Your task to perform on an android device: check battery use Image 0: 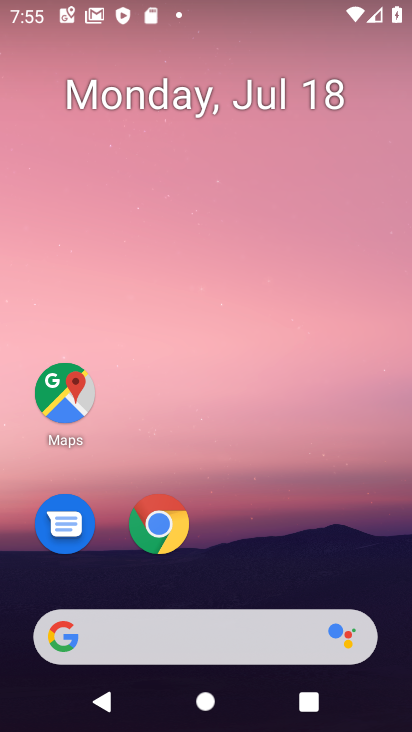
Step 0: drag from (286, 549) to (291, 11)
Your task to perform on an android device: check battery use Image 1: 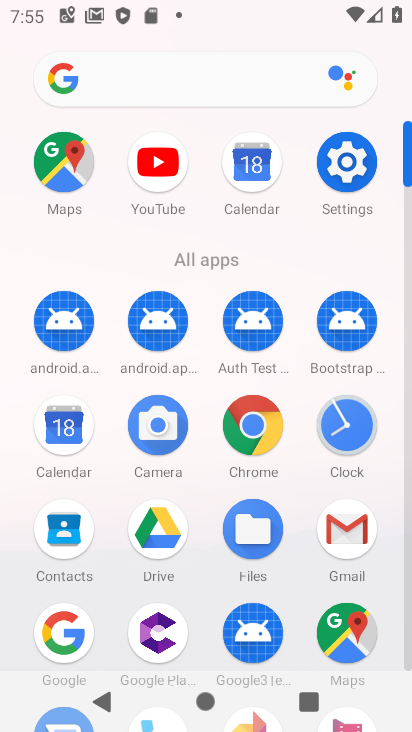
Step 1: click (342, 167)
Your task to perform on an android device: check battery use Image 2: 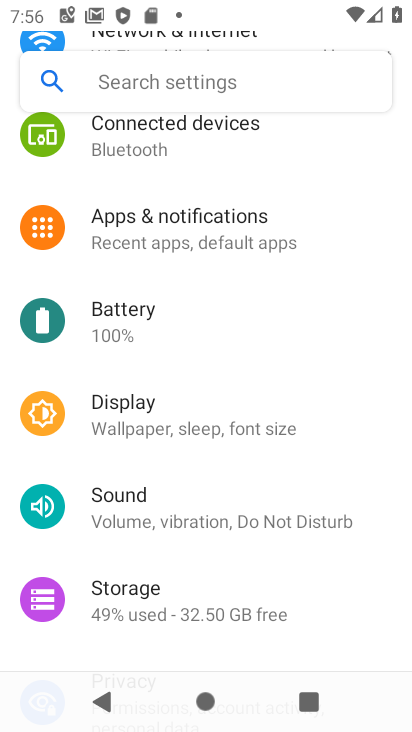
Step 2: click (131, 321)
Your task to perform on an android device: check battery use Image 3: 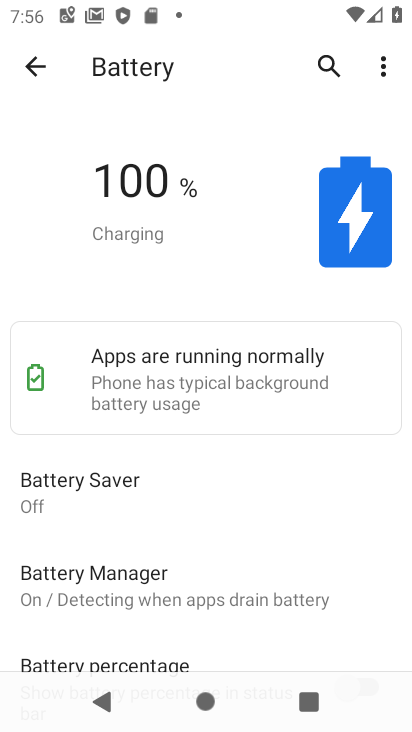
Step 3: click (381, 74)
Your task to perform on an android device: check battery use Image 4: 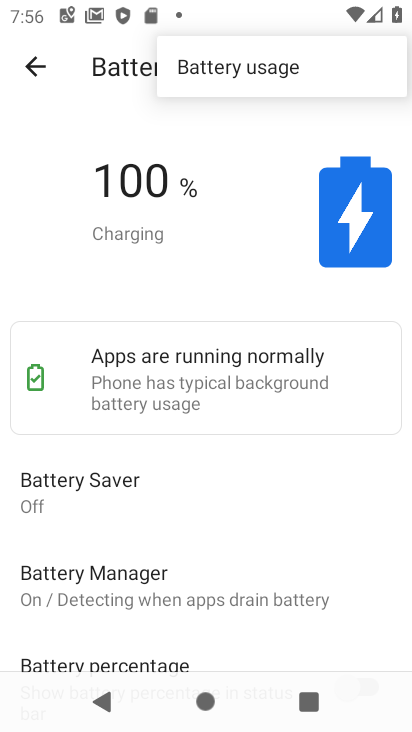
Step 4: click (286, 62)
Your task to perform on an android device: check battery use Image 5: 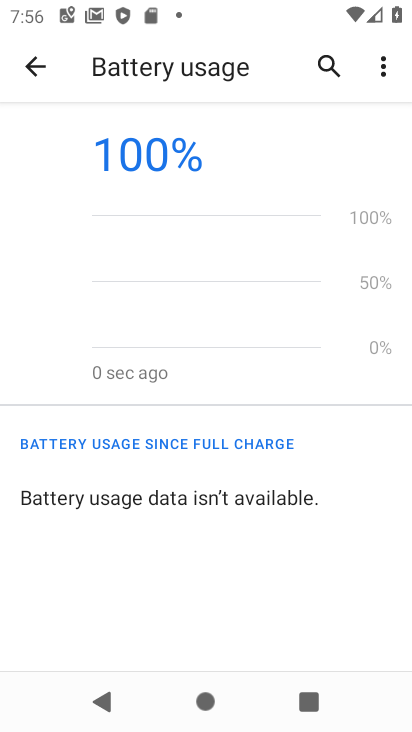
Step 5: task complete